Your task to perform on an android device: Open maps Image 0: 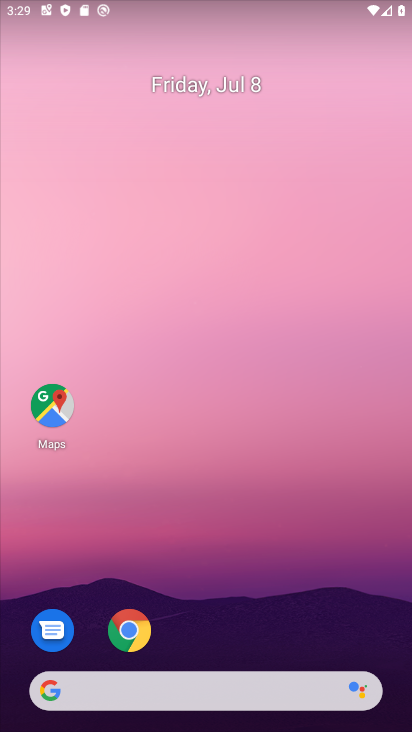
Step 0: drag from (294, 609) to (307, 240)
Your task to perform on an android device: Open maps Image 1: 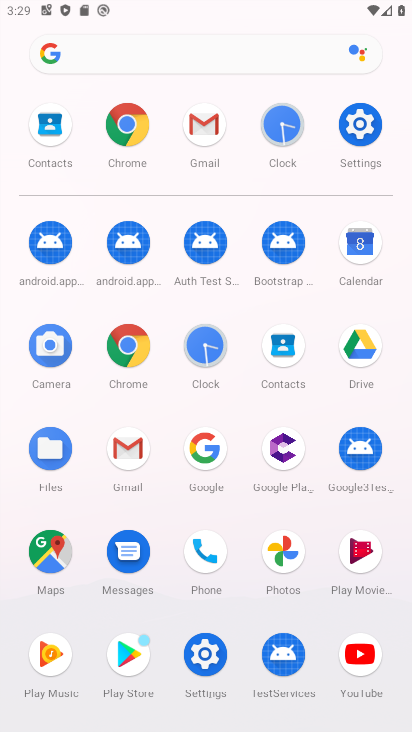
Step 1: click (59, 544)
Your task to perform on an android device: Open maps Image 2: 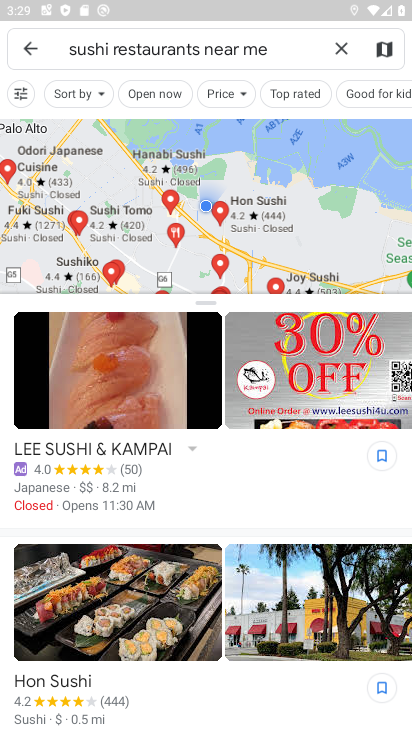
Step 2: task complete